Your task to perform on an android device: Do I have any events this weekend? Image 0: 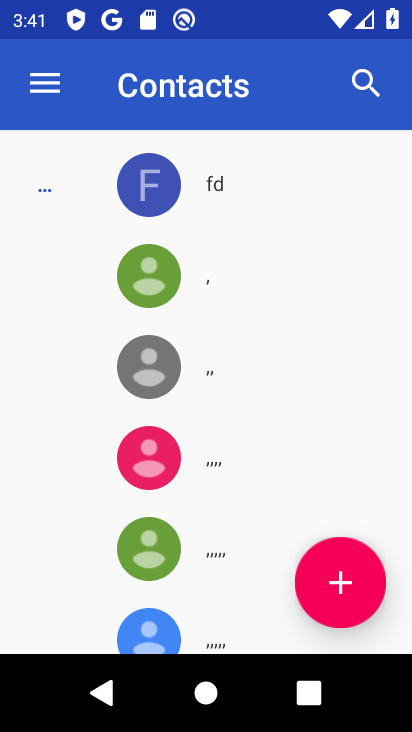
Step 0: press home button
Your task to perform on an android device: Do I have any events this weekend? Image 1: 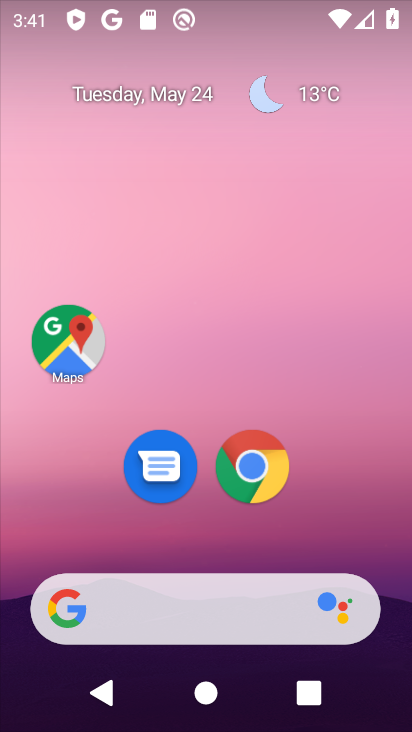
Step 1: drag from (309, 498) to (299, 190)
Your task to perform on an android device: Do I have any events this weekend? Image 2: 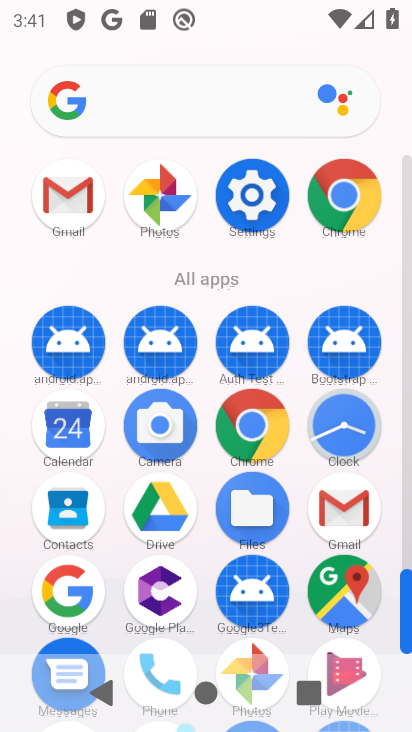
Step 2: click (77, 422)
Your task to perform on an android device: Do I have any events this weekend? Image 3: 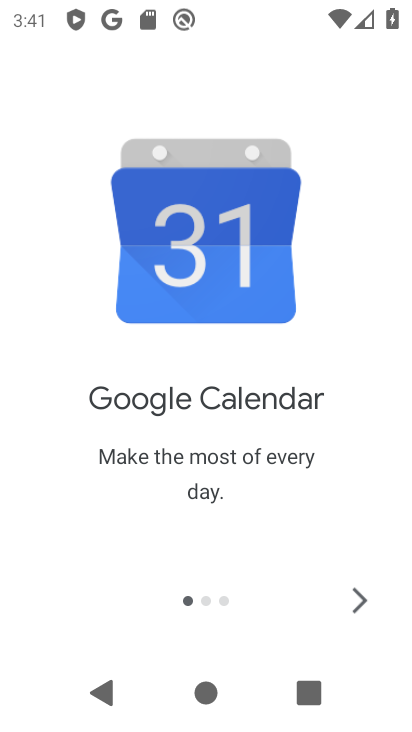
Step 3: click (356, 606)
Your task to perform on an android device: Do I have any events this weekend? Image 4: 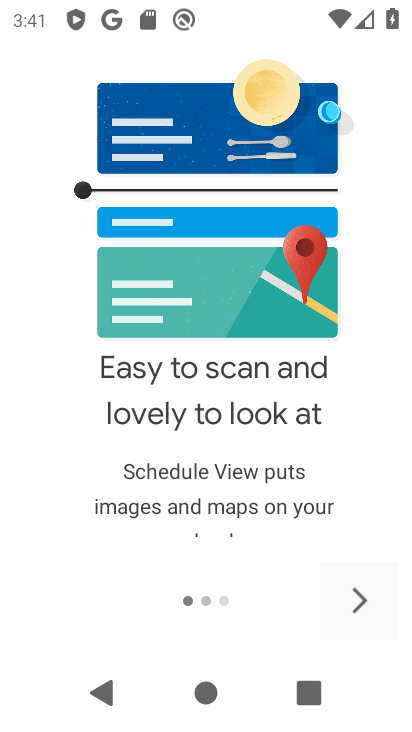
Step 4: click (355, 604)
Your task to perform on an android device: Do I have any events this weekend? Image 5: 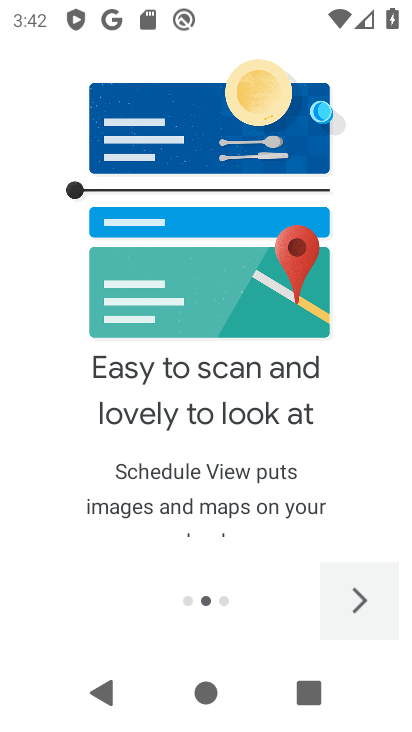
Step 5: click (355, 604)
Your task to perform on an android device: Do I have any events this weekend? Image 6: 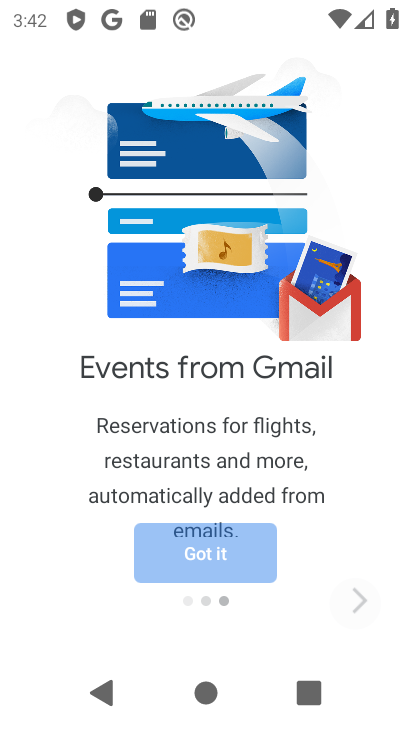
Step 6: click (355, 604)
Your task to perform on an android device: Do I have any events this weekend? Image 7: 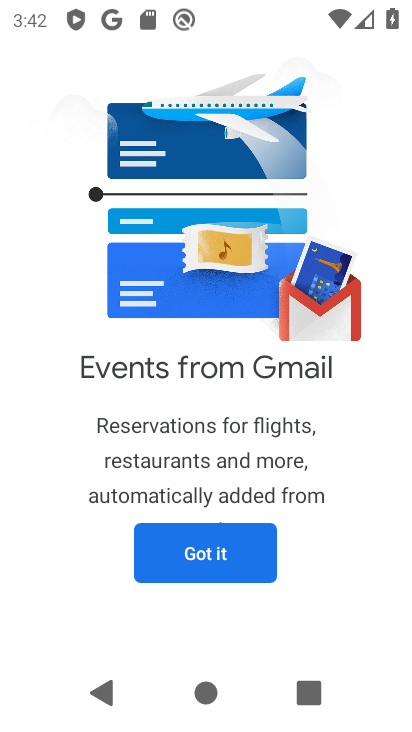
Step 7: click (355, 604)
Your task to perform on an android device: Do I have any events this weekend? Image 8: 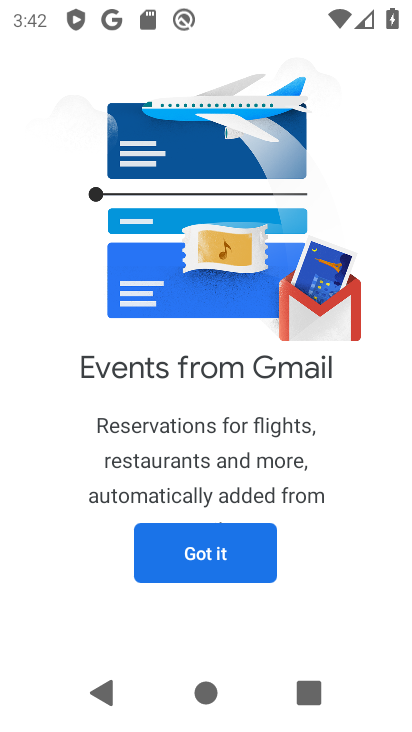
Step 8: click (226, 548)
Your task to perform on an android device: Do I have any events this weekend? Image 9: 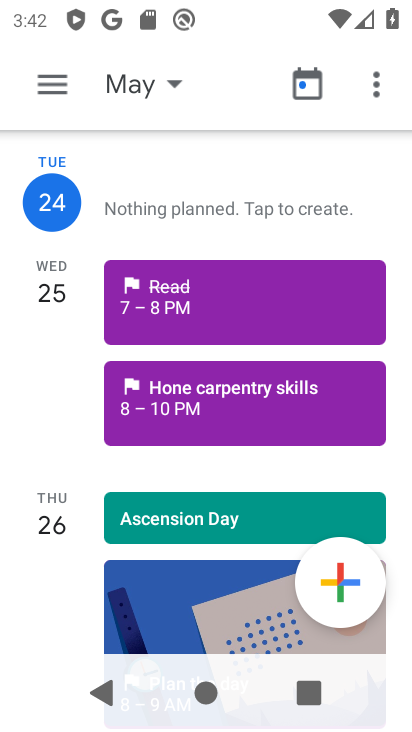
Step 9: click (44, 82)
Your task to perform on an android device: Do I have any events this weekend? Image 10: 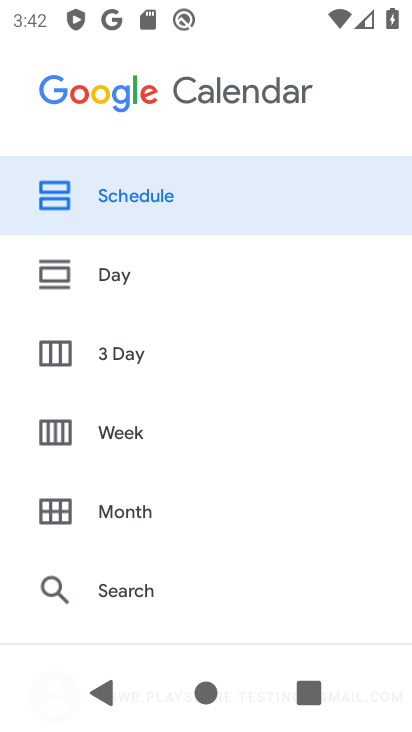
Step 10: click (147, 435)
Your task to perform on an android device: Do I have any events this weekend? Image 11: 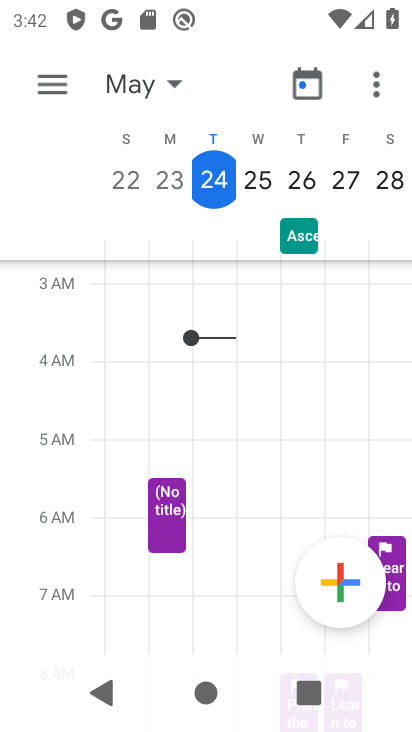
Step 11: click (55, 85)
Your task to perform on an android device: Do I have any events this weekend? Image 12: 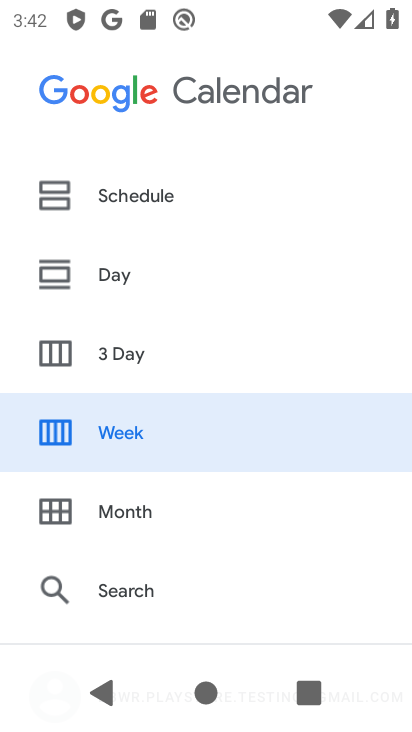
Step 12: click (139, 354)
Your task to perform on an android device: Do I have any events this weekend? Image 13: 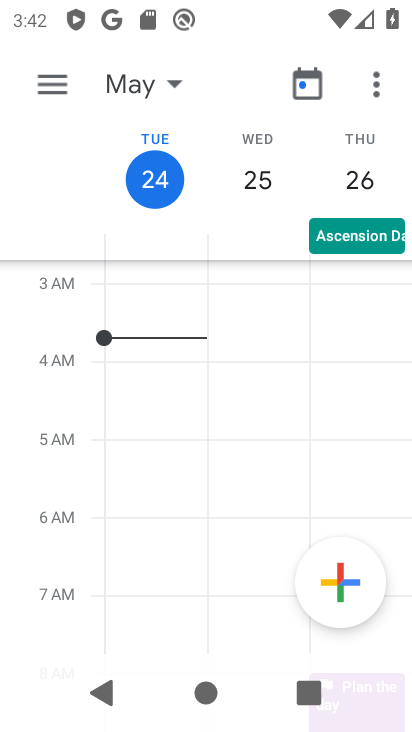
Step 13: task complete